Your task to perform on an android device: Open settings on Google Maps Image 0: 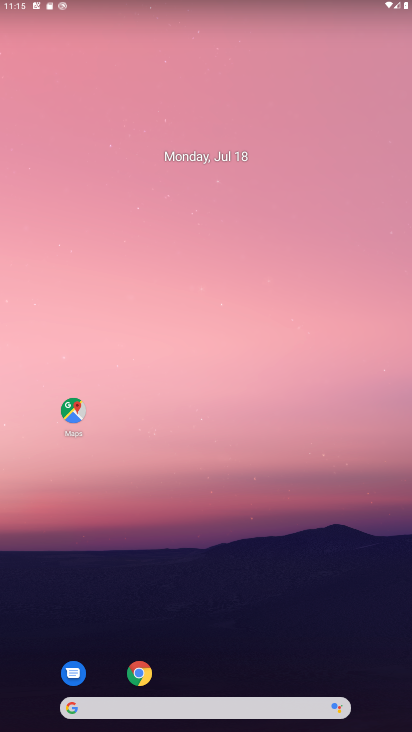
Step 0: click (72, 409)
Your task to perform on an android device: Open settings on Google Maps Image 1: 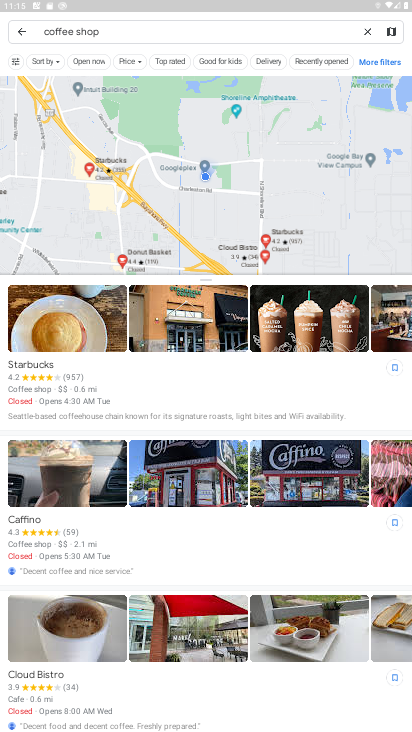
Step 1: click (23, 31)
Your task to perform on an android device: Open settings on Google Maps Image 2: 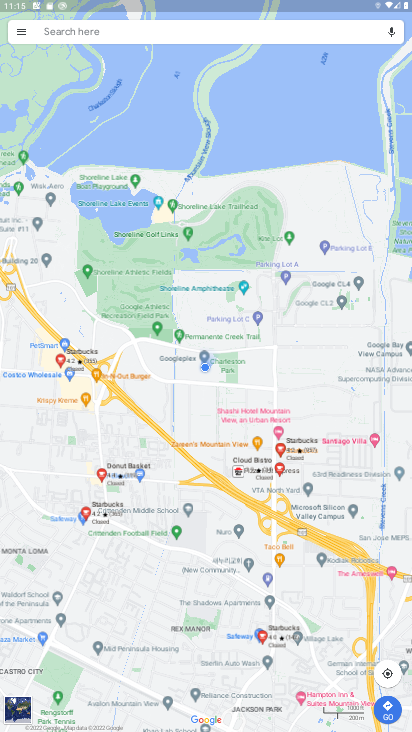
Step 2: click (21, 36)
Your task to perform on an android device: Open settings on Google Maps Image 3: 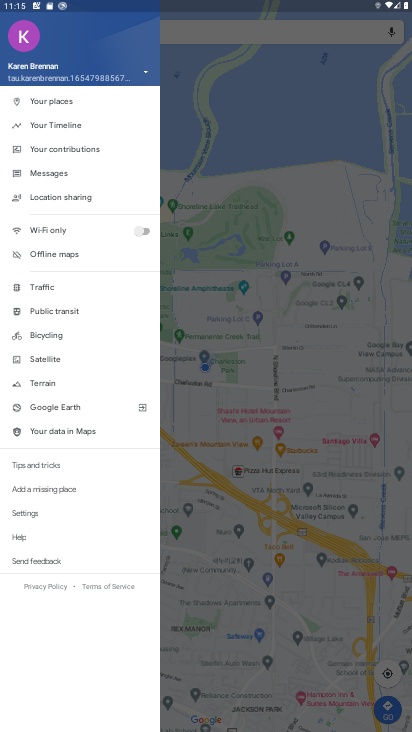
Step 3: click (17, 509)
Your task to perform on an android device: Open settings on Google Maps Image 4: 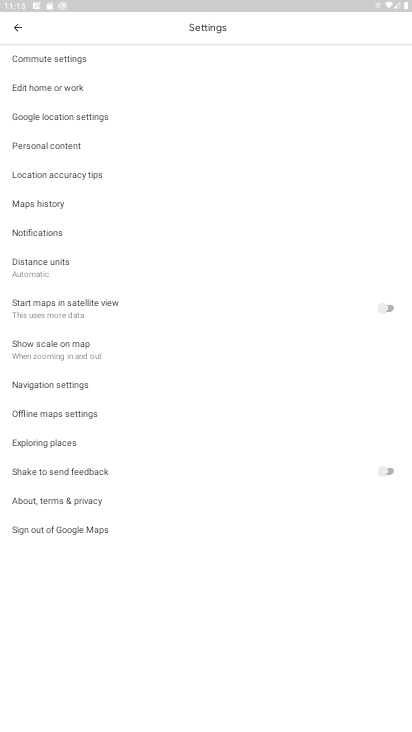
Step 4: task complete